Your task to perform on an android device: change the clock display to digital Image 0: 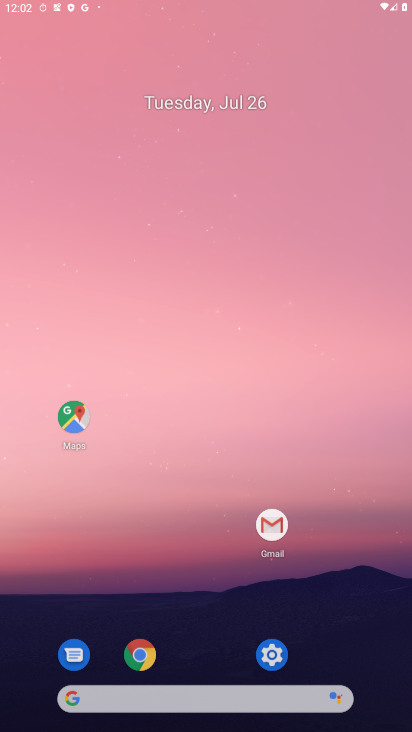
Step 0: press home button
Your task to perform on an android device: change the clock display to digital Image 1: 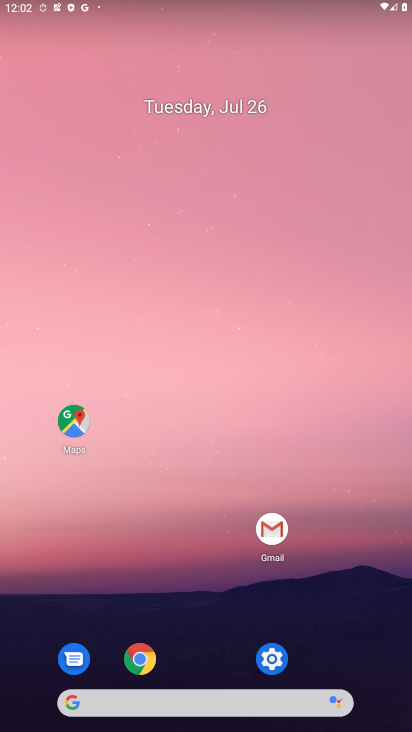
Step 1: click (133, 655)
Your task to perform on an android device: change the clock display to digital Image 2: 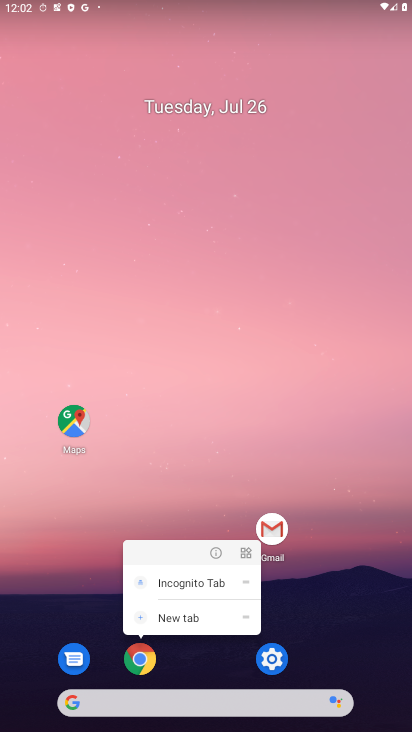
Step 2: click (147, 663)
Your task to perform on an android device: change the clock display to digital Image 3: 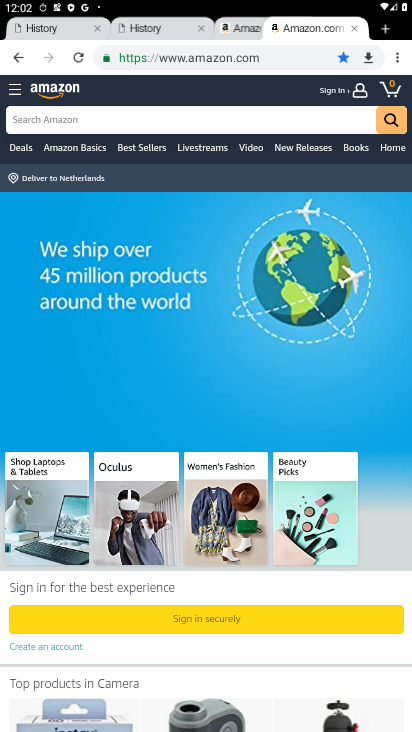
Step 3: press home button
Your task to perform on an android device: change the clock display to digital Image 4: 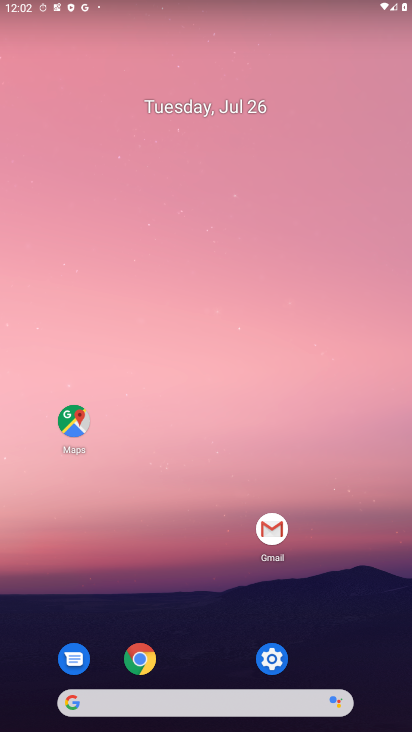
Step 4: drag from (232, 717) to (199, 313)
Your task to perform on an android device: change the clock display to digital Image 5: 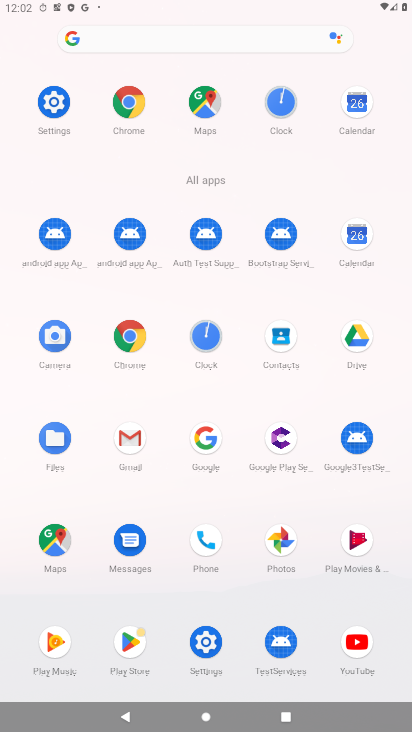
Step 5: click (207, 342)
Your task to perform on an android device: change the clock display to digital Image 6: 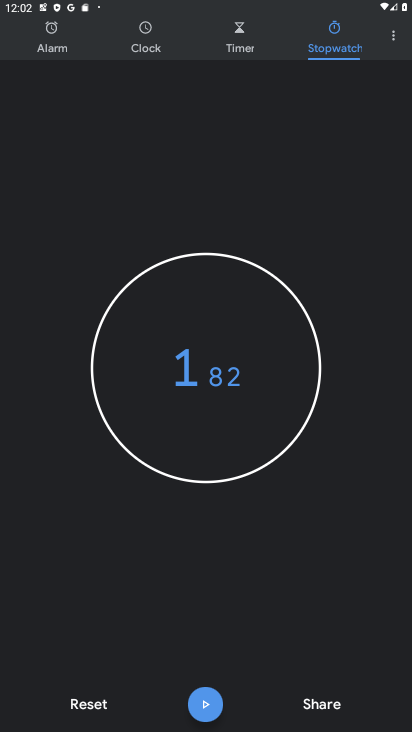
Step 6: click (397, 35)
Your task to perform on an android device: change the clock display to digital Image 7: 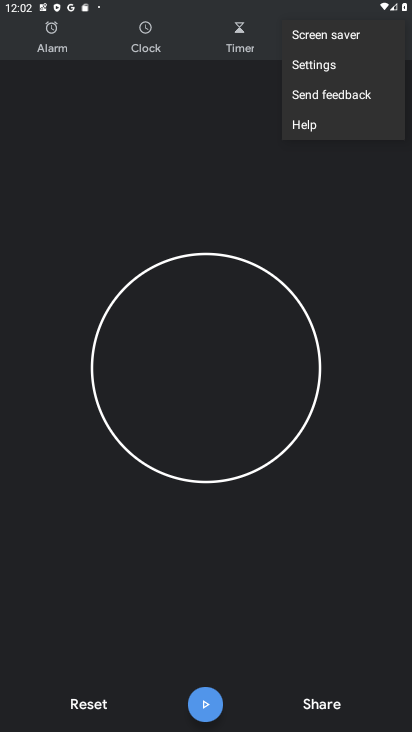
Step 7: click (331, 63)
Your task to perform on an android device: change the clock display to digital Image 8: 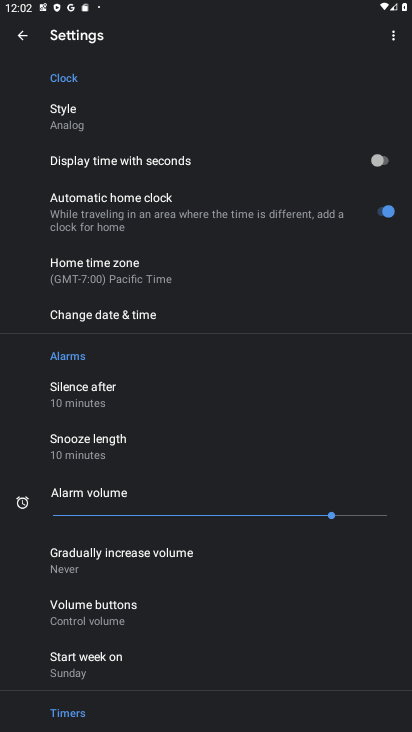
Step 8: click (103, 127)
Your task to perform on an android device: change the clock display to digital Image 9: 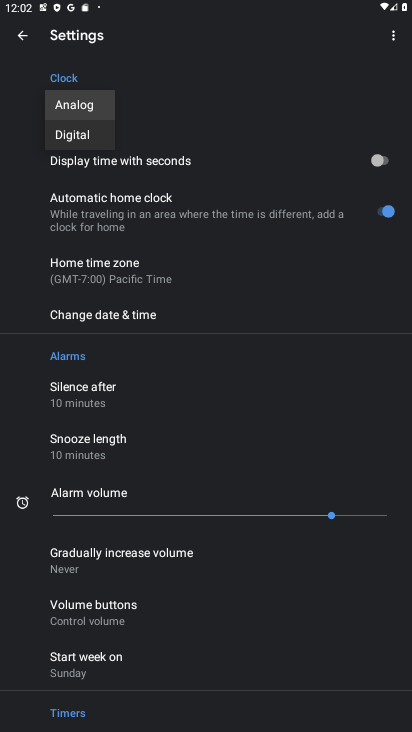
Step 9: click (75, 129)
Your task to perform on an android device: change the clock display to digital Image 10: 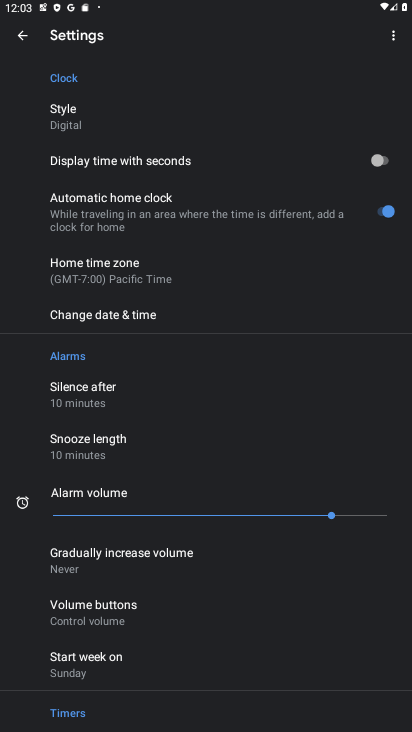
Step 10: task complete